Your task to perform on an android device: Open settings Image 0: 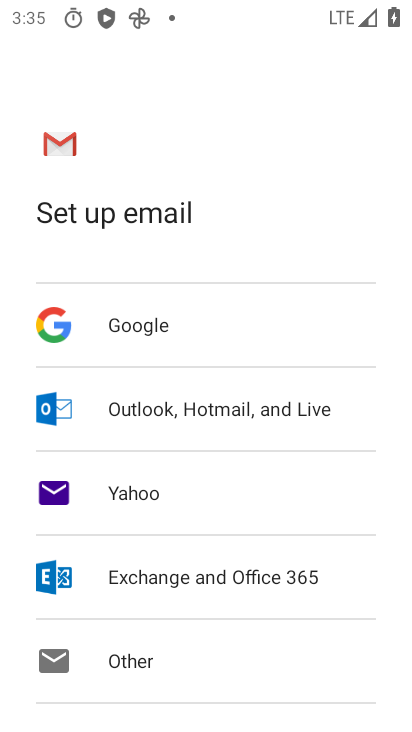
Step 0: press home button
Your task to perform on an android device: Open settings Image 1: 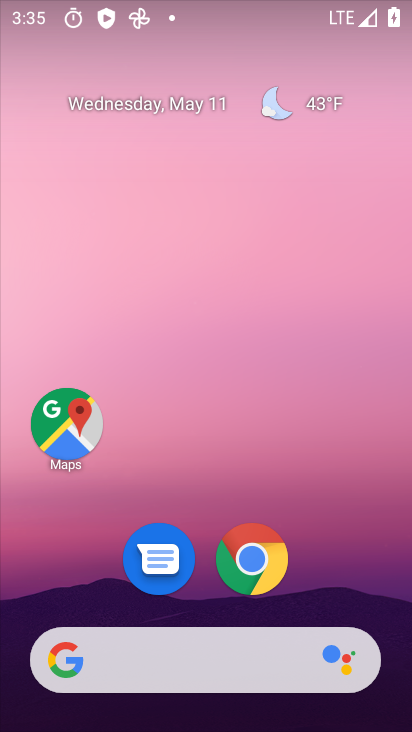
Step 1: drag from (348, 557) to (229, 73)
Your task to perform on an android device: Open settings Image 2: 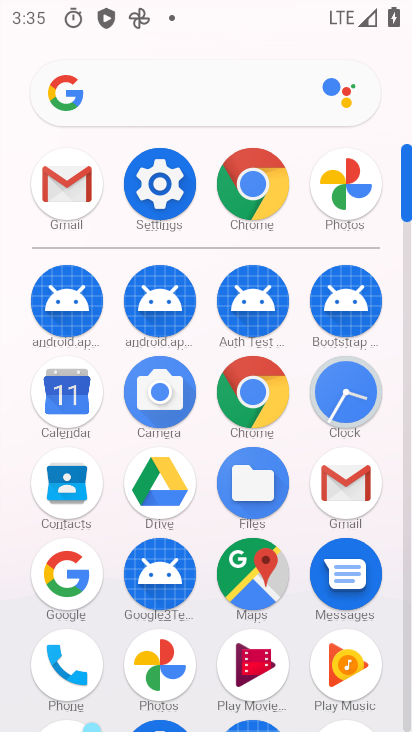
Step 2: click (157, 190)
Your task to perform on an android device: Open settings Image 3: 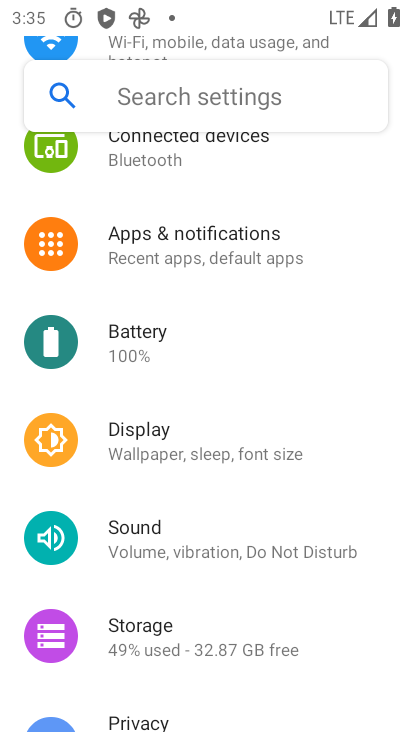
Step 3: task complete